Your task to perform on an android device: Search for sushi restaurants on Maps Image 0: 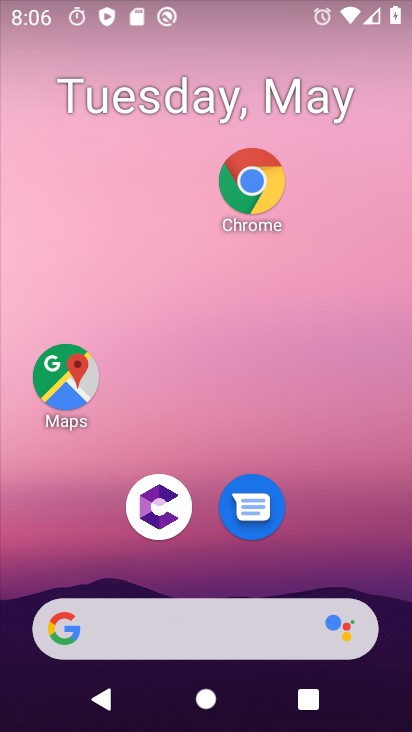
Step 0: click (55, 366)
Your task to perform on an android device: Search for sushi restaurants on Maps Image 1: 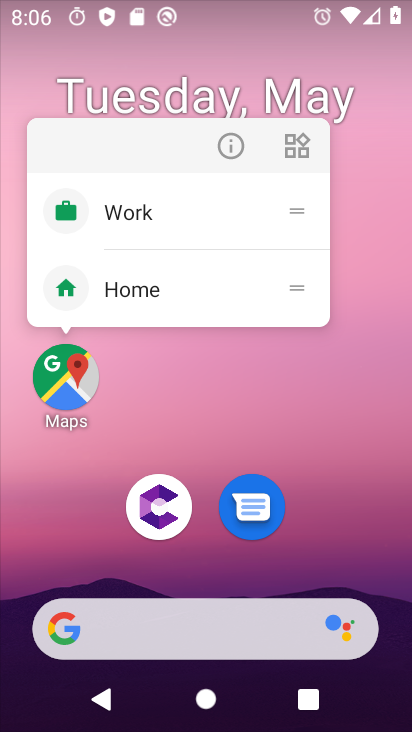
Step 1: click (59, 374)
Your task to perform on an android device: Search for sushi restaurants on Maps Image 2: 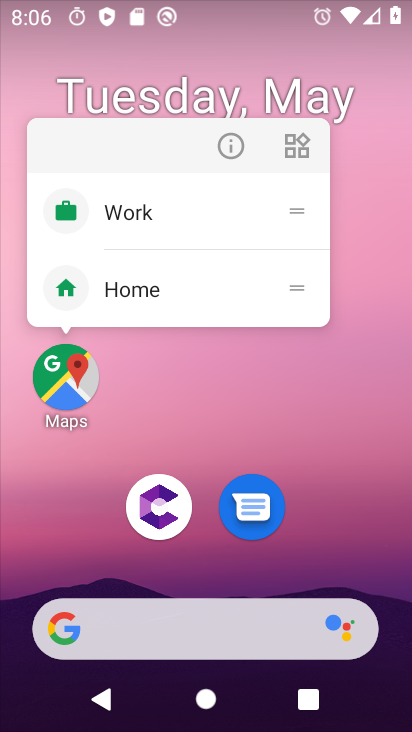
Step 2: click (59, 374)
Your task to perform on an android device: Search for sushi restaurants on Maps Image 3: 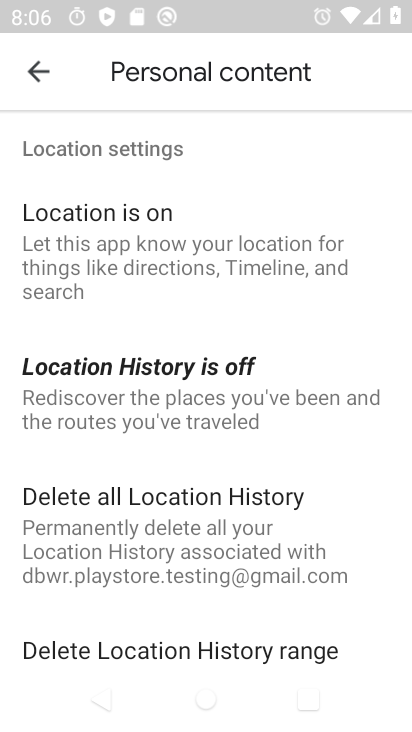
Step 3: click (30, 72)
Your task to perform on an android device: Search for sushi restaurants on Maps Image 4: 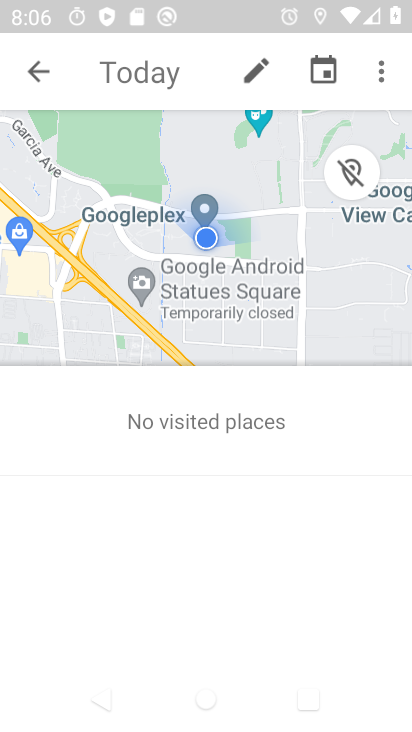
Step 4: click (32, 71)
Your task to perform on an android device: Search for sushi restaurants on Maps Image 5: 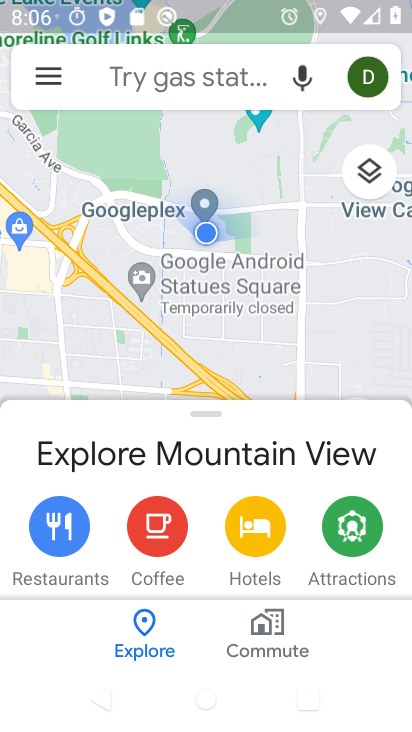
Step 5: click (145, 81)
Your task to perform on an android device: Search for sushi restaurants on Maps Image 6: 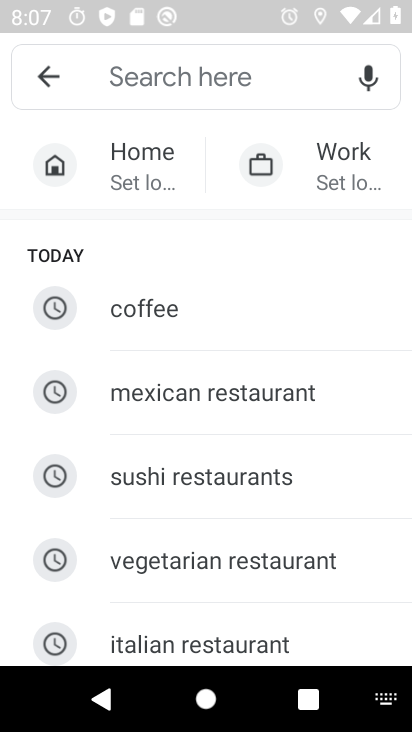
Step 6: type "sushi restaurants"
Your task to perform on an android device: Search for sushi restaurants on Maps Image 7: 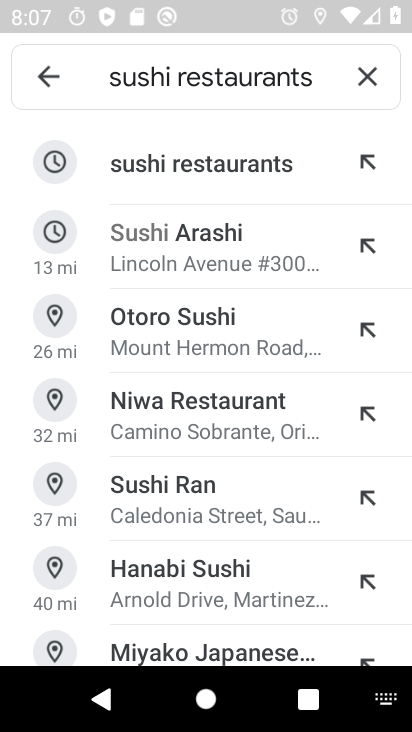
Step 7: click (293, 150)
Your task to perform on an android device: Search for sushi restaurants on Maps Image 8: 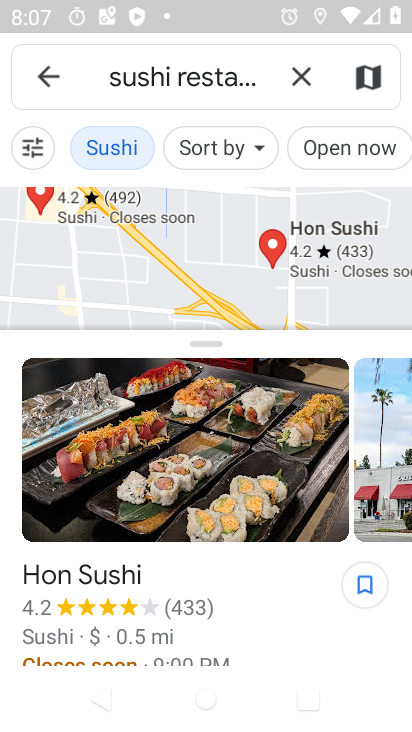
Step 8: task complete